Your task to perform on an android device: Open calendar and show me the third week of next month Image 0: 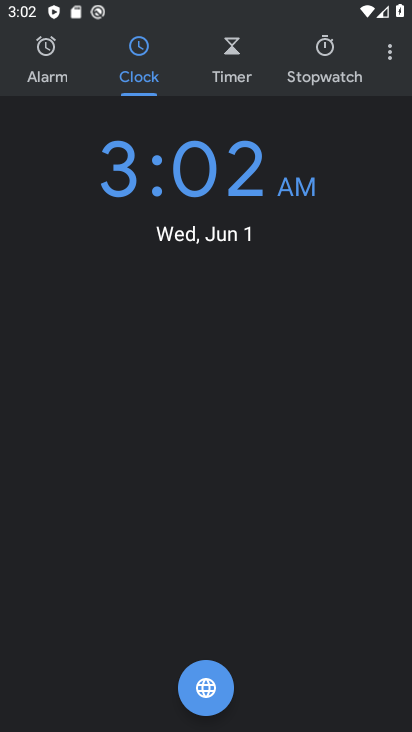
Step 0: press home button
Your task to perform on an android device: Open calendar and show me the third week of next month Image 1: 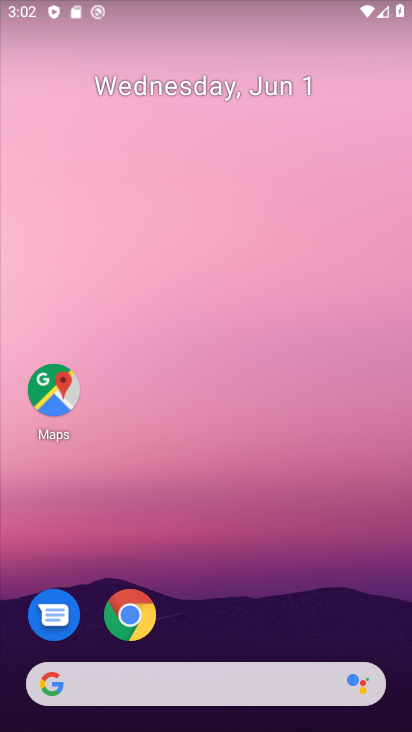
Step 1: drag from (210, 629) to (205, 11)
Your task to perform on an android device: Open calendar and show me the third week of next month Image 2: 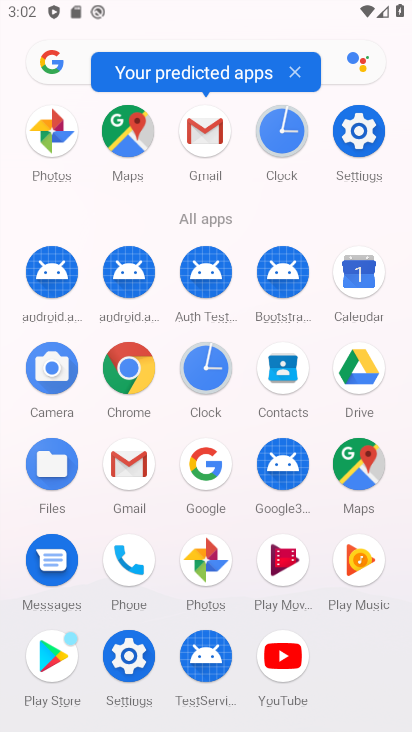
Step 2: click (355, 269)
Your task to perform on an android device: Open calendar and show me the third week of next month Image 3: 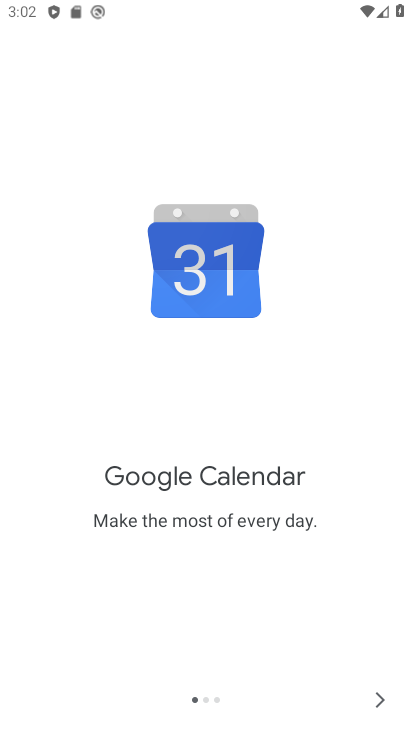
Step 3: click (387, 693)
Your task to perform on an android device: Open calendar and show me the third week of next month Image 4: 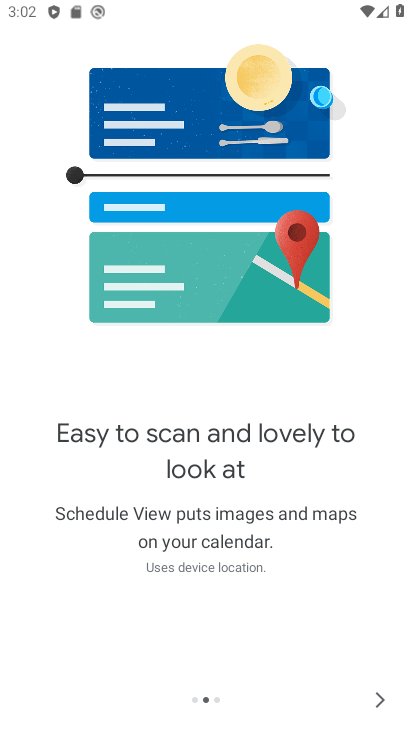
Step 4: click (365, 692)
Your task to perform on an android device: Open calendar and show me the third week of next month Image 5: 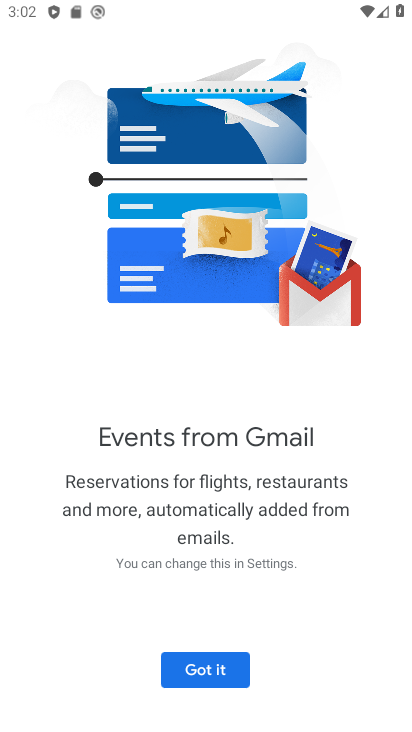
Step 5: click (212, 667)
Your task to perform on an android device: Open calendar and show me the third week of next month Image 6: 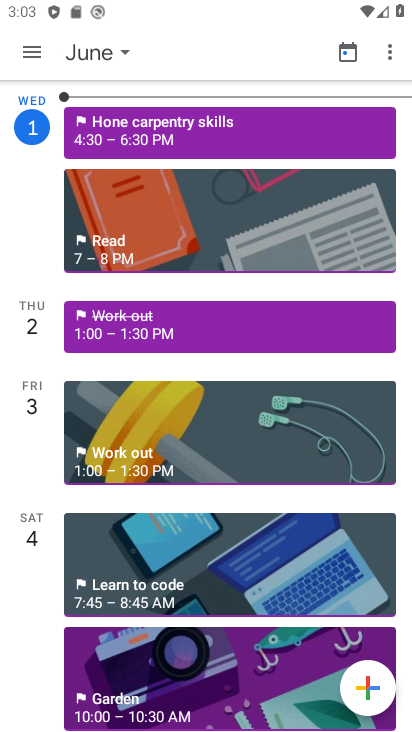
Step 6: click (117, 51)
Your task to perform on an android device: Open calendar and show me the third week of next month Image 7: 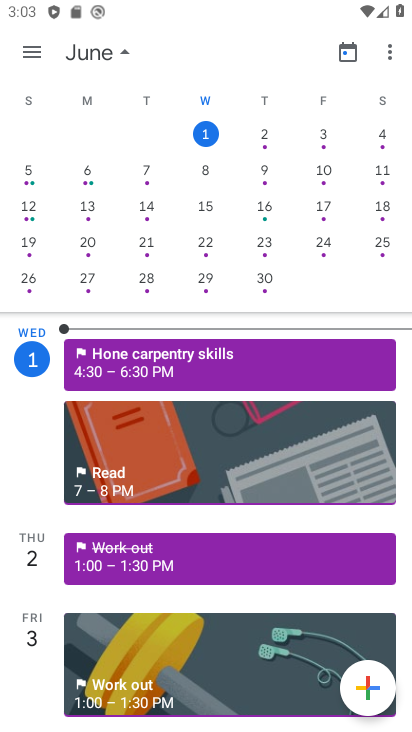
Step 7: drag from (362, 194) to (19, 220)
Your task to perform on an android device: Open calendar and show me the third week of next month Image 8: 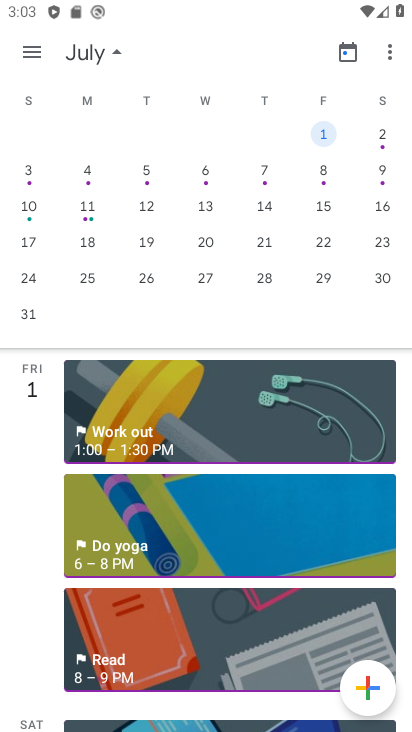
Step 8: click (20, 244)
Your task to perform on an android device: Open calendar and show me the third week of next month Image 9: 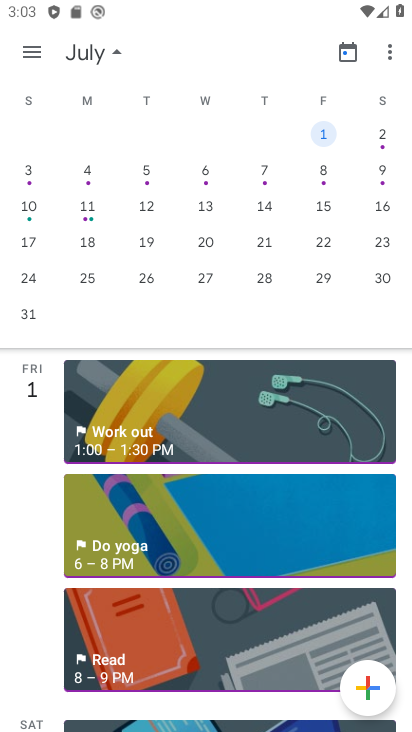
Step 9: click (29, 238)
Your task to perform on an android device: Open calendar and show me the third week of next month Image 10: 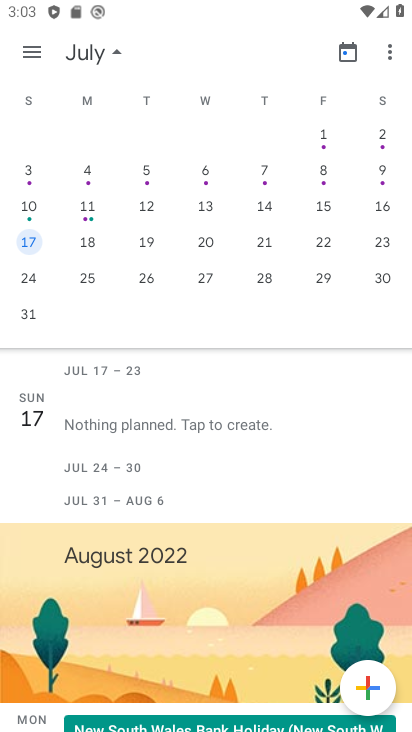
Step 10: click (110, 45)
Your task to perform on an android device: Open calendar and show me the third week of next month Image 11: 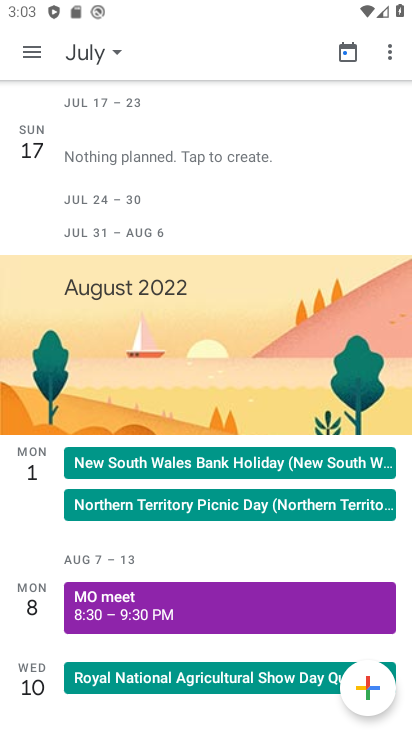
Step 11: drag from (41, 207) to (41, 137)
Your task to perform on an android device: Open calendar and show me the third week of next month Image 12: 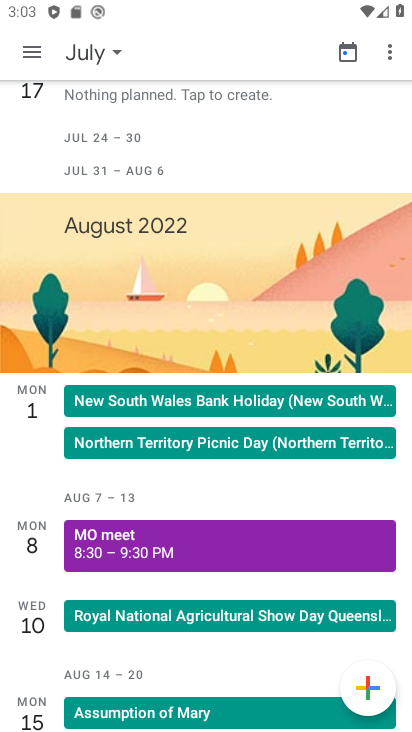
Step 12: drag from (41, 148) to (53, 302)
Your task to perform on an android device: Open calendar and show me the third week of next month Image 13: 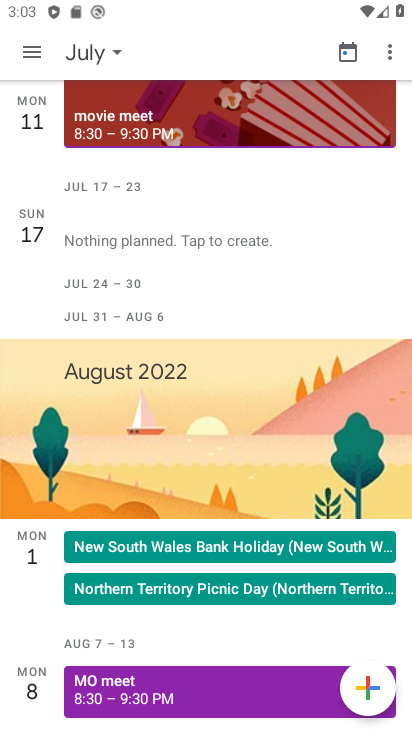
Step 13: click (27, 47)
Your task to perform on an android device: Open calendar and show me the third week of next month Image 14: 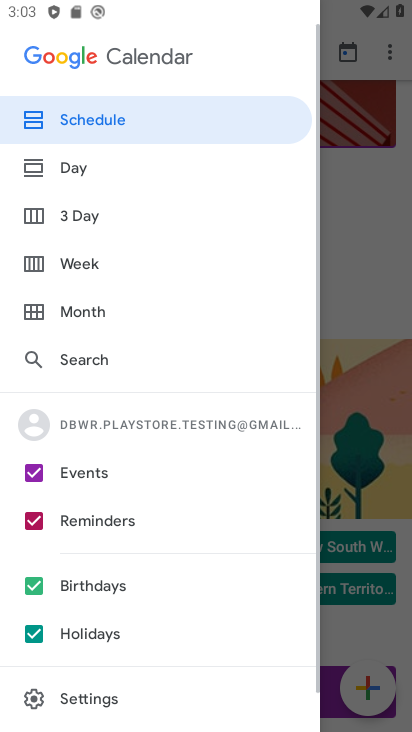
Step 14: click (70, 255)
Your task to perform on an android device: Open calendar and show me the third week of next month Image 15: 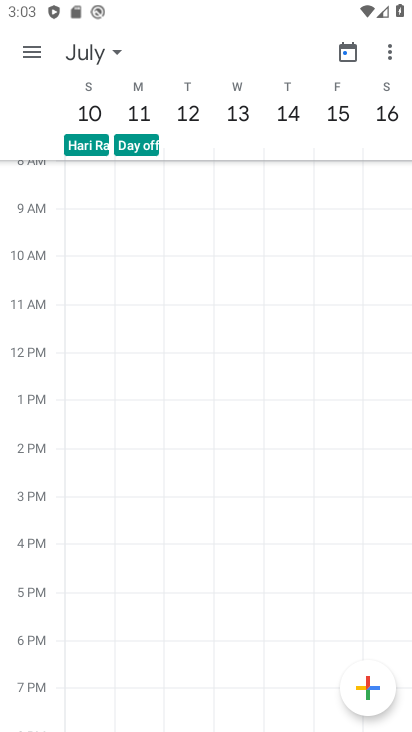
Step 15: drag from (371, 108) to (98, 133)
Your task to perform on an android device: Open calendar and show me the third week of next month Image 16: 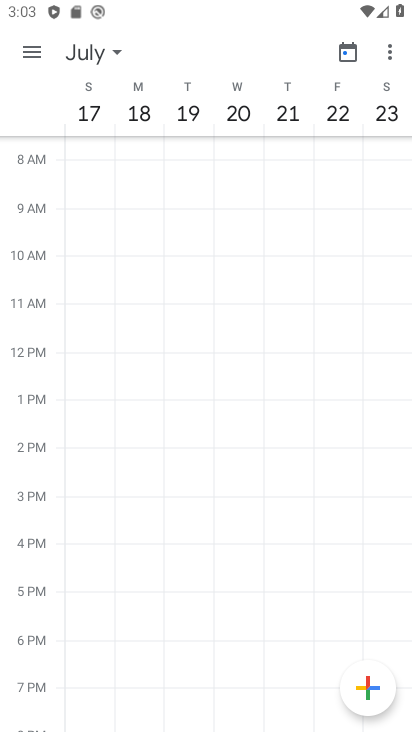
Step 16: click (92, 113)
Your task to perform on an android device: Open calendar and show me the third week of next month Image 17: 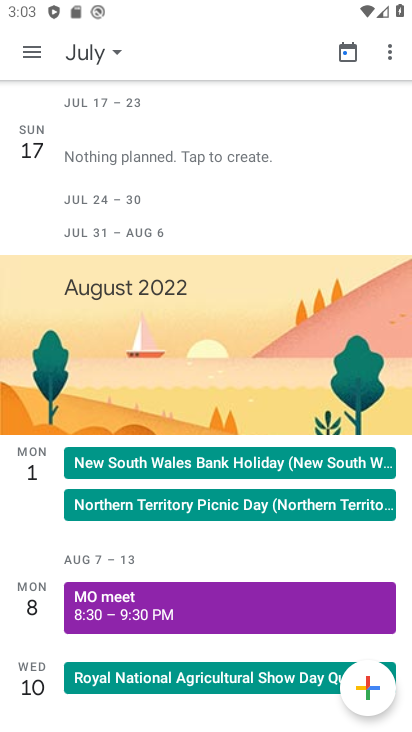
Step 17: task complete